Your task to perform on an android device: allow notifications from all sites in the chrome app Image 0: 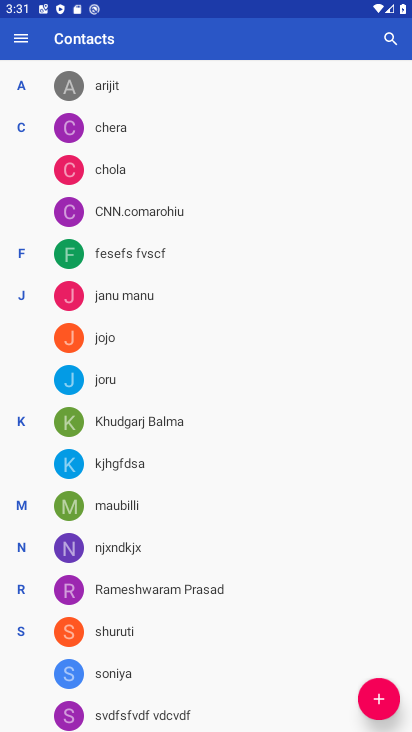
Step 0: press home button
Your task to perform on an android device: allow notifications from all sites in the chrome app Image 1: 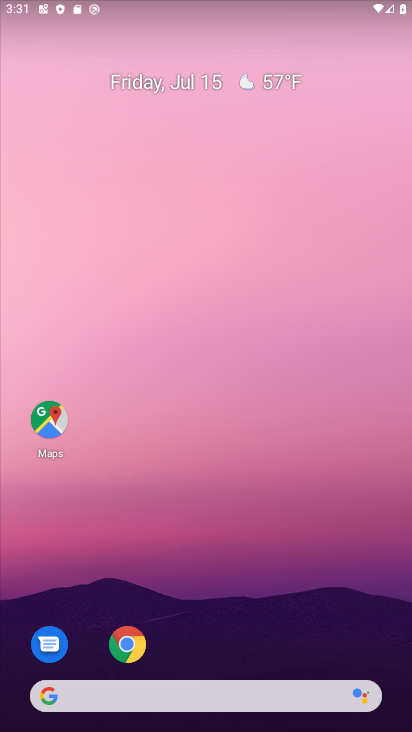
Step 1: click (115, 657)
Your task to perform on an android device: allow notifications from all sites in the chrome app Image 2: 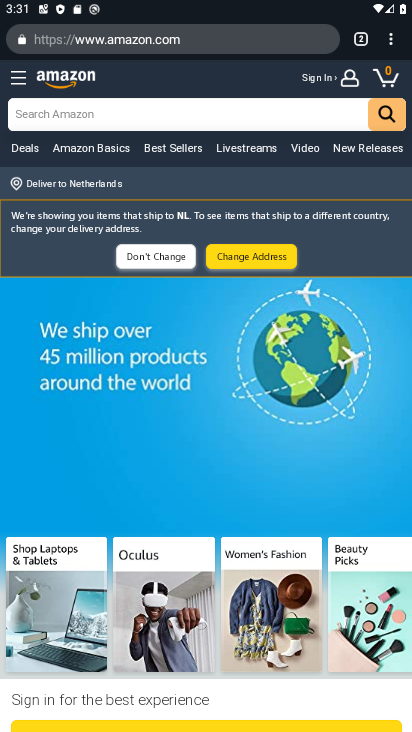
Step 2: click (393, 52)
Your task to perform on an android device: allow notifications from all sites in the chrome app Image 3: 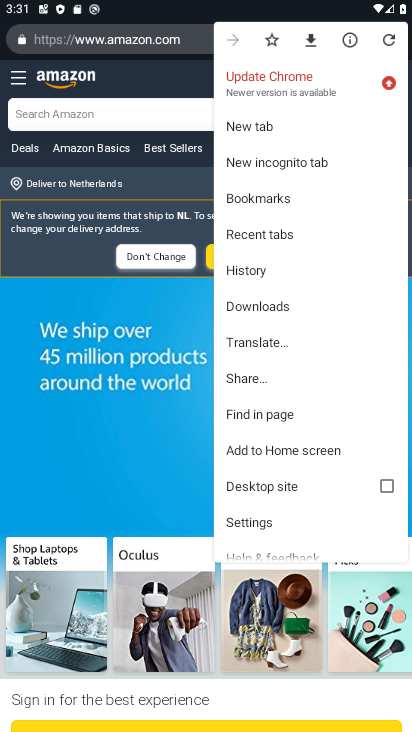
Step 3: click (329, 521)
Your task to perform on an android device: allow notifications from all sites in the chrome app Image 4: 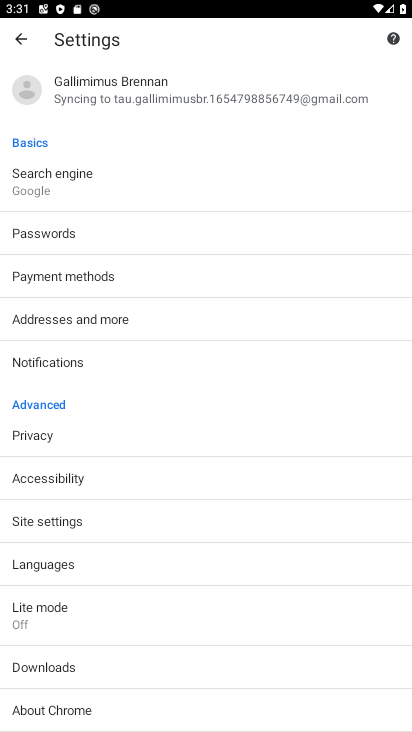
Step 4: click (146, 529)
Your task to perform on an android device: allow notifications from all sites in the chrome app Image 5: 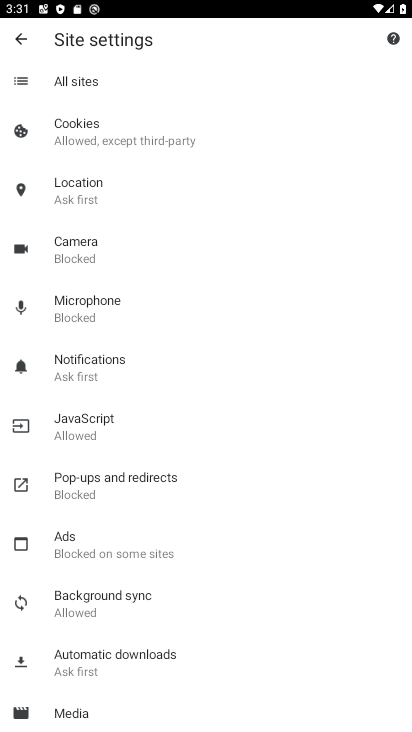
Step 5: click (232, 368)
Your task to perform on an android device: allow notifications from all sites in the chrome app Image 6: 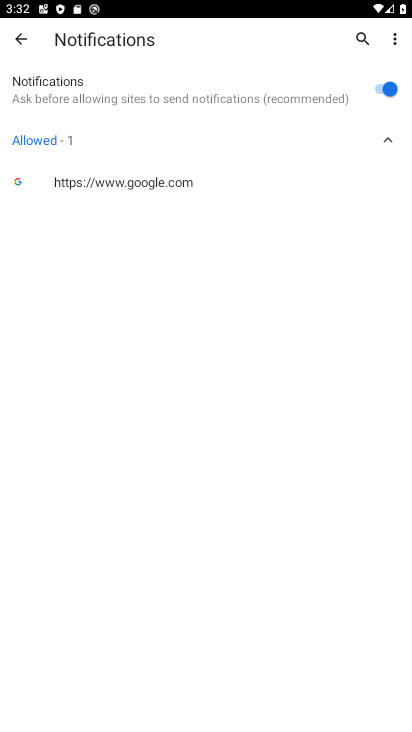
Step 6: task complete